Your task to perform on an android device: change the clock display to analog Image 0: 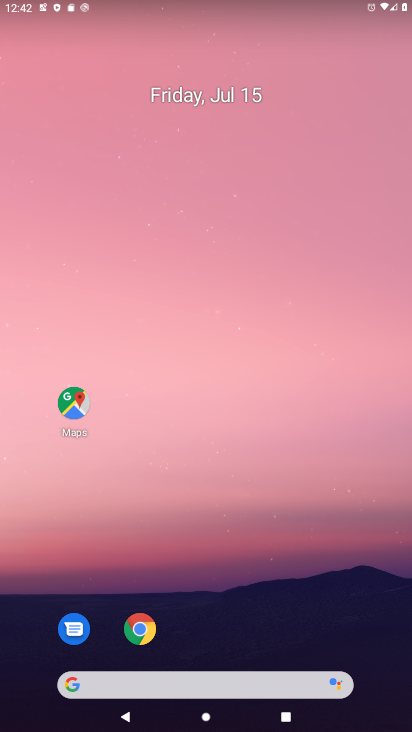
Step 0: drag from (234, 645) to (318, 89)
Your task to perform on an android device: change the clock display to analog Image 1: 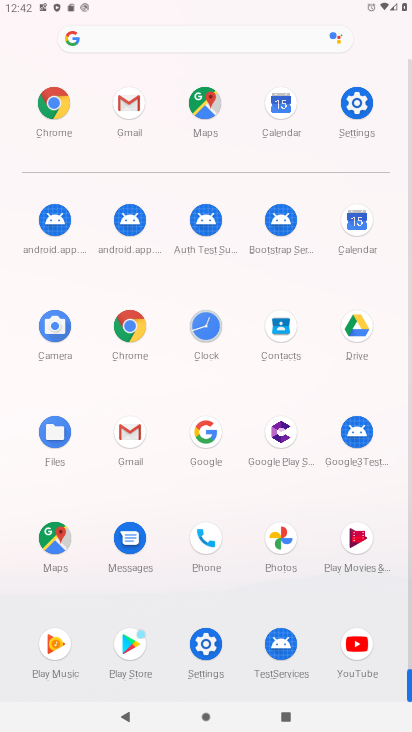
Step 1: click (209, 332)
Your task to perform on an android device: change the clock display to analog Image 2: 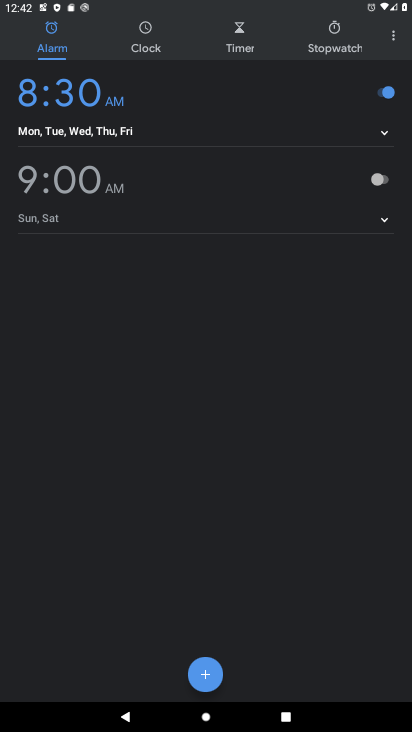
Step 2: click (396, 37)
Your task to perform on an android device: change the clock display to analog Image 3: 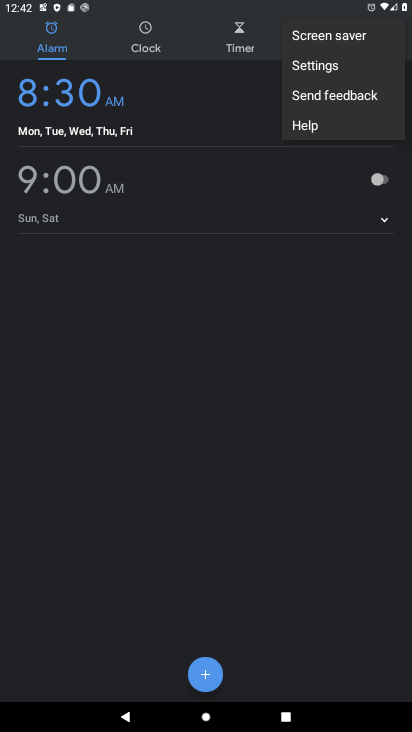
Step 3: click (324, 68)
Your task to perform on an android device: change the clock display to analog Image 4: 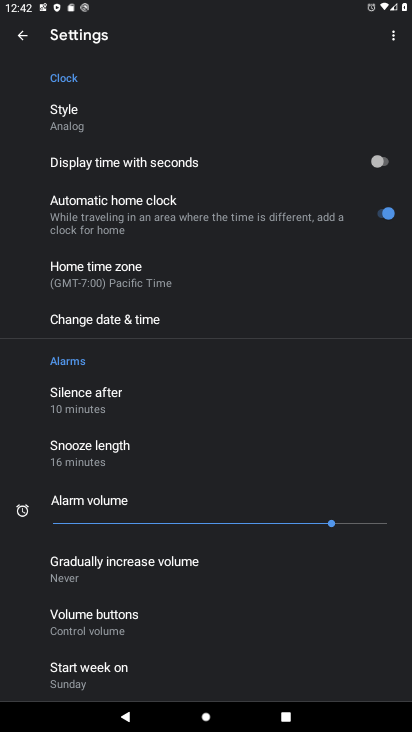
Step 4: click (67, 121)
Your task to perform on an android device: change the clock display to analog Image 5: 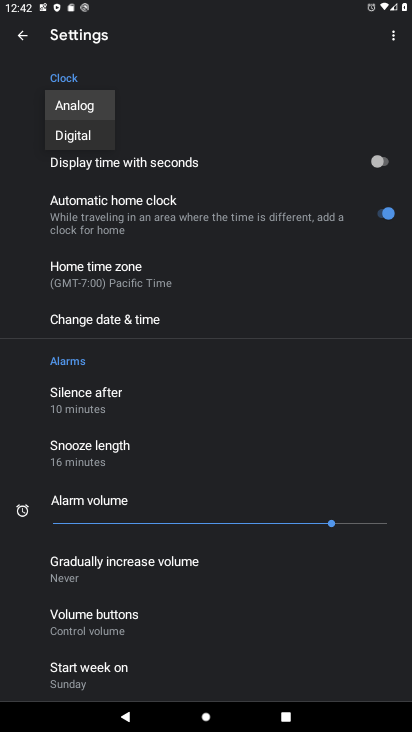
Step 5: task complete